Your task to perform on an android device: Open accessibility settings Image 0: 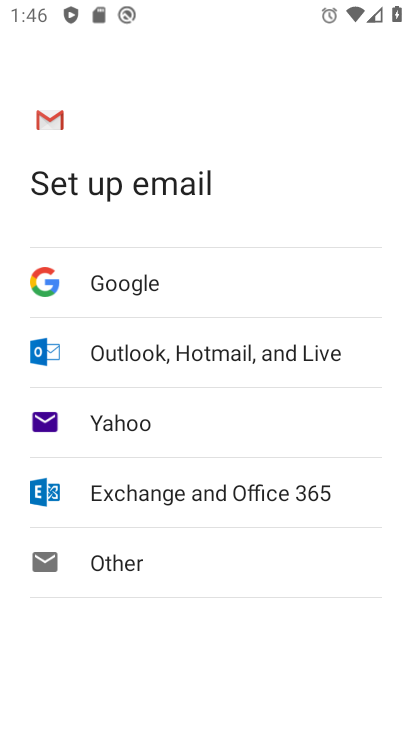
Step 0: press home button
Your task to perform on an android device: Open accessibility settings Image 1: 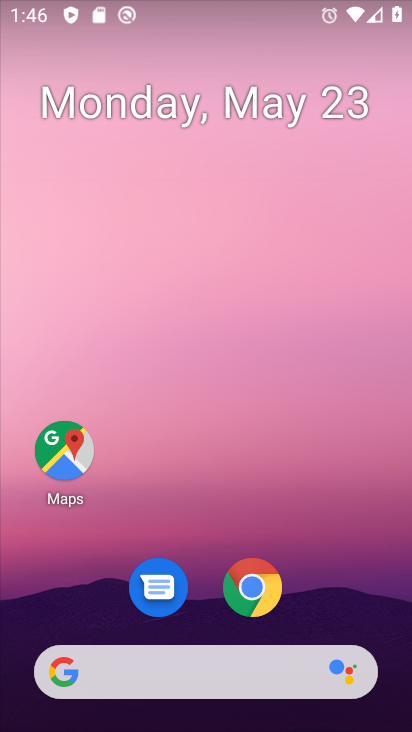
Step 1: drag from (342, 598) to (336, 167)
Your task to perform on an android device: Open accessibility settings Image 2: 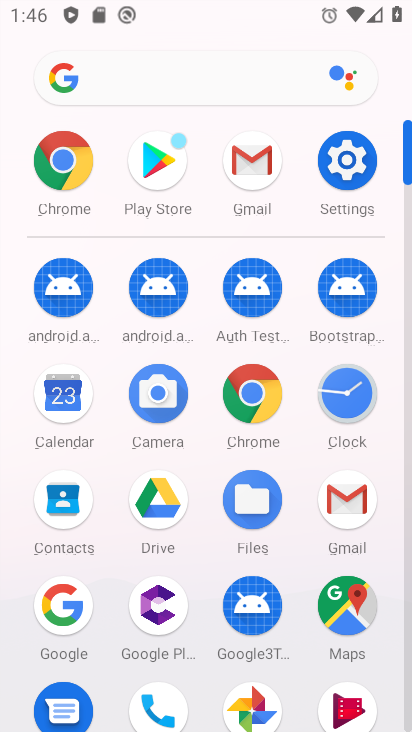
Step 2: click (361, 184)
Your task to perform on an android device: Open accessibility settings Image 3: 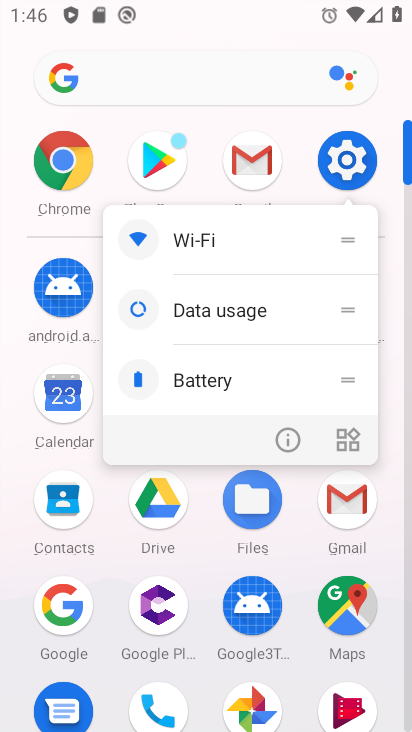
Step 3: click (361, 184)
Your task to perform on an android device: Open accessibility settings Image 4: 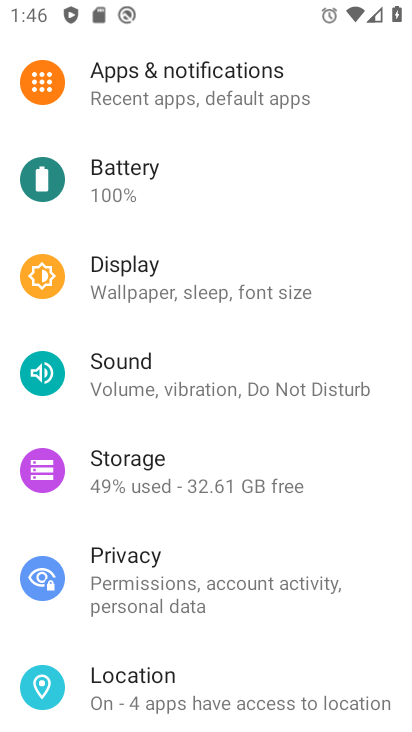
Step 4: drag from (258, 527) to (257, 287)
Your task to perform on an android device: Open accessibility settings Image 5: 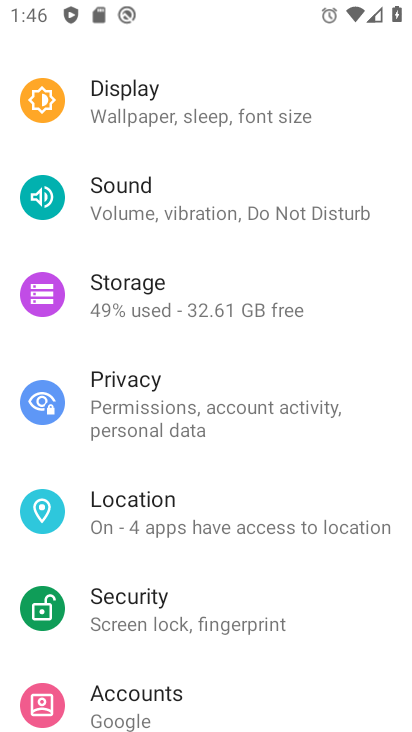
Step 5: drag from (179, 607) to (248, 345)
Your task to perform on an android device: Open accessibility settings Image 6: 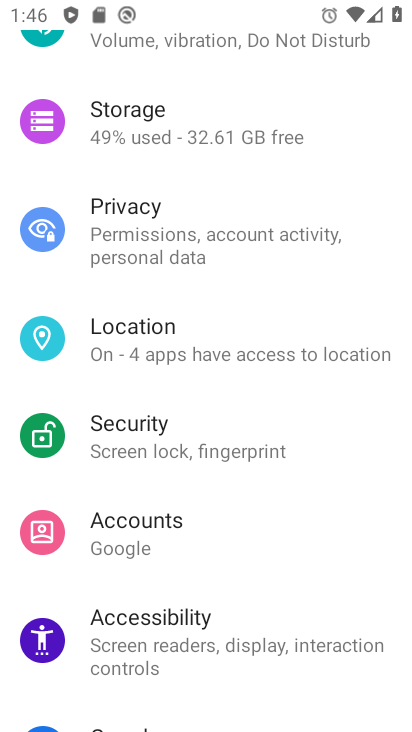
Step 6: click (212, 606)
Your task to perform on an android device: Open accessibility settings Image 7: 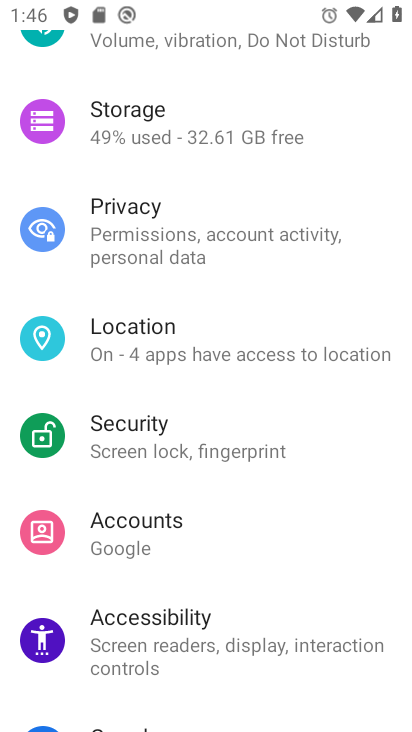
Step 7: click (212, 606)
Your task to perform on an android device: Open accessibility settings Image 8: 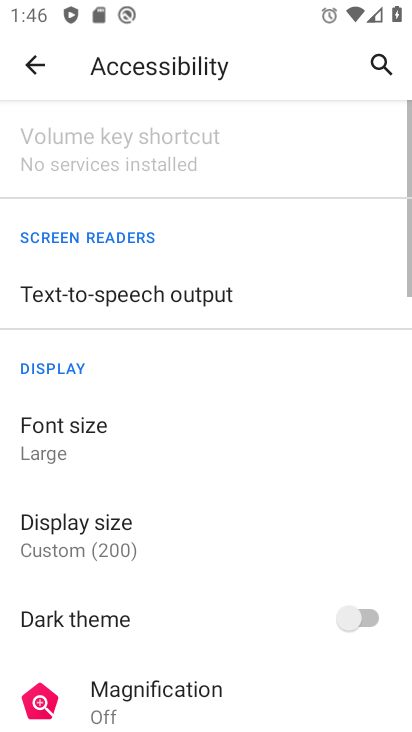
Step 8: task complete